Your task to perform on an android device: open sync settings in chrome Image 0: 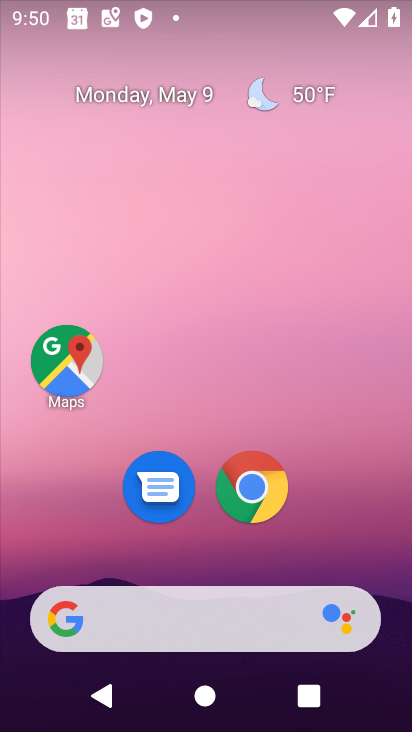
Step 0: click (234, 484)
Your task to perform on an android device: open sync settings in chrome Image 1: 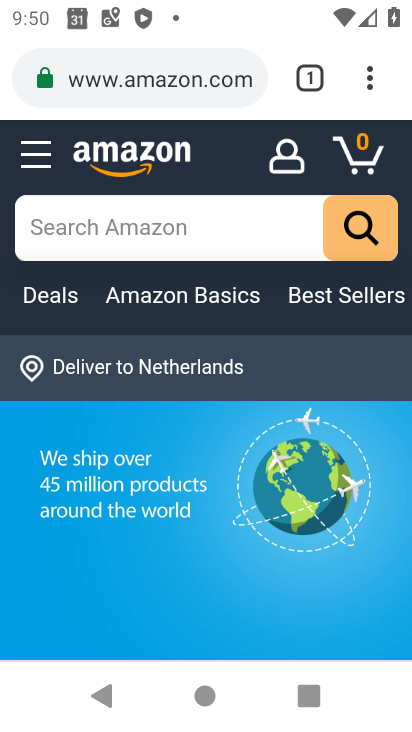
Step 1: click (355, 80)
Your task to perform on an android device: open sync settings in chrome Image 2: 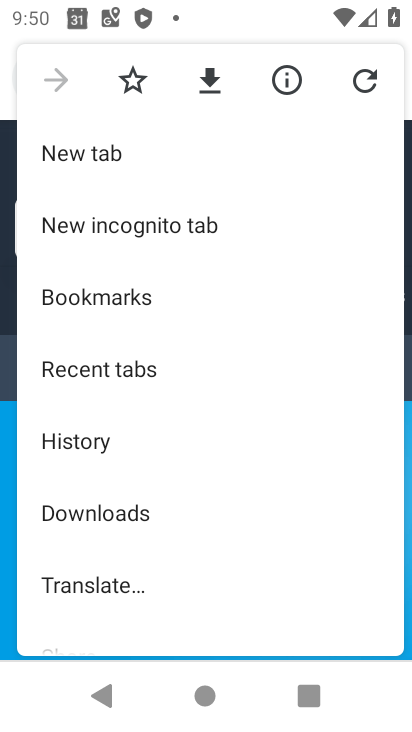
Step 2: drag from (108, 604) to (334, 20)
Your task to perform on an android device: open sync settings in chrome Image 3: 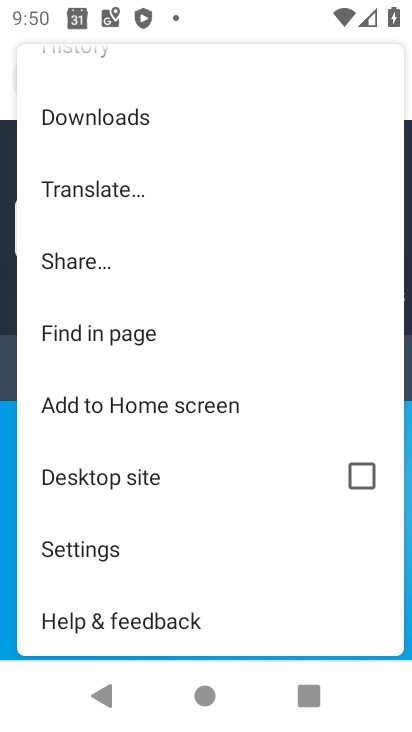
Step 3: click (93, 560)
Your task to perform on an android device: open sync settings in chrome Image 4: 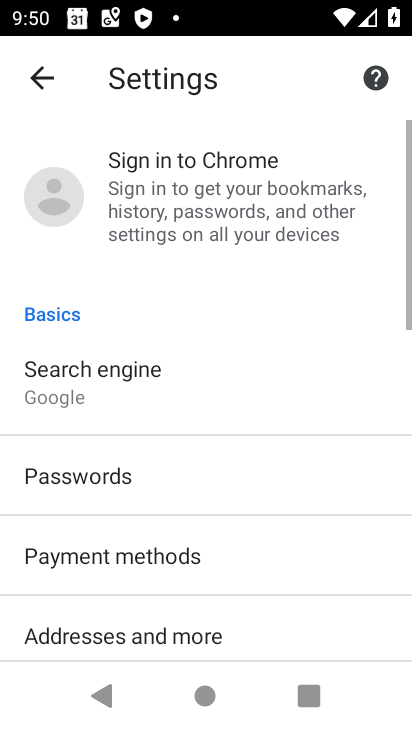
Step 4: drag from (137, 649) to (406, 59)
Your task to perform on an android device: open sync settings in chrome Image 5: 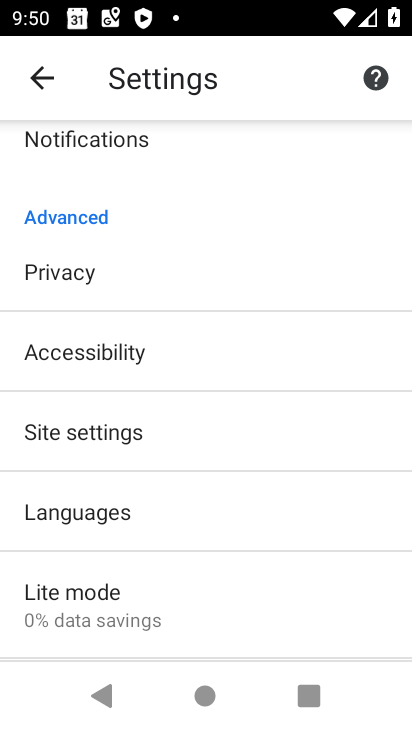
Step 5: click (95, 433)
Your task to perform on an android device: open sync settings in chrome Image 6: 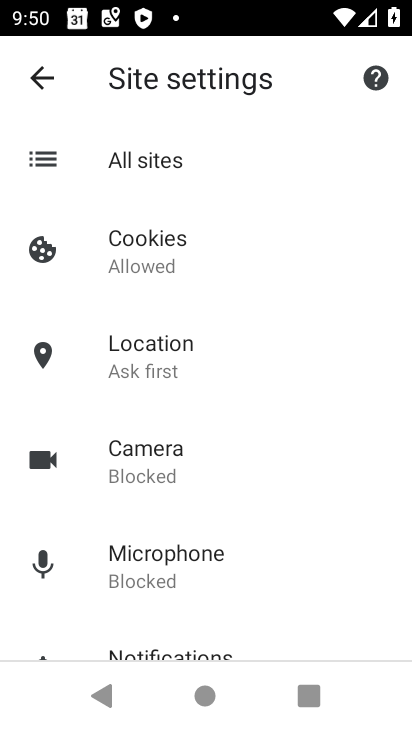
Step 6: drag from (125, 630) to (359, 90)
Your task to perform on an android device: open sync settings in chrome Image 7: 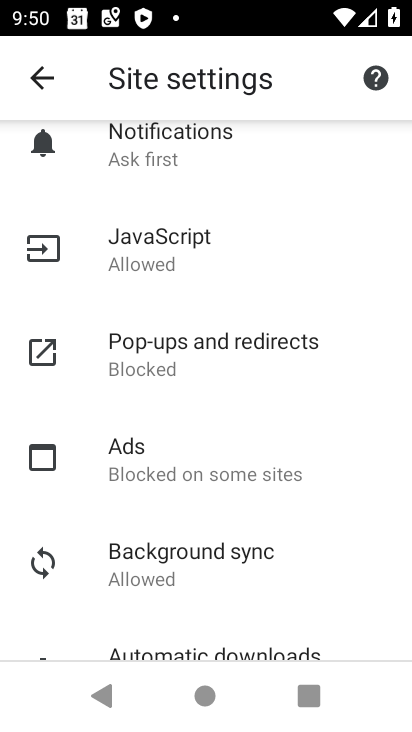
Step 7: click (155, 576)
Your task to perform on an android device: open sync settings in chrome Image 8: 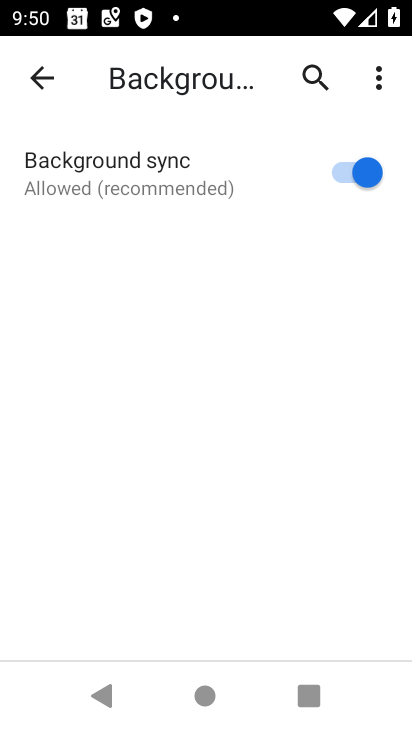
Step 8: click (115, 161)
Your task to perform on an android device: open sync settings in chrome Image 9: 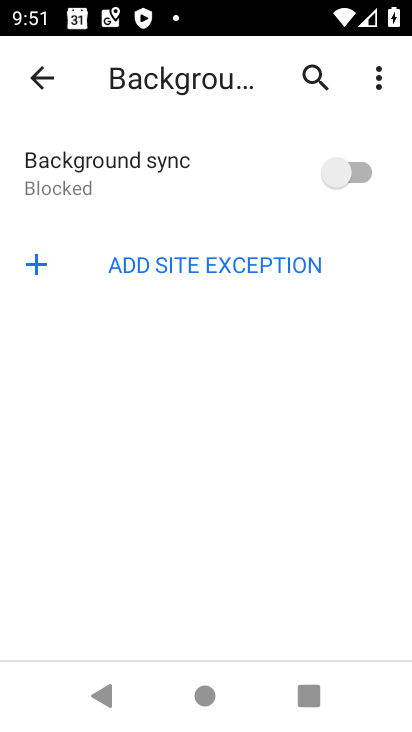
Step 9: click (333, 174)
Your task to perform on an android device: open sync settings in chrome Image 10: 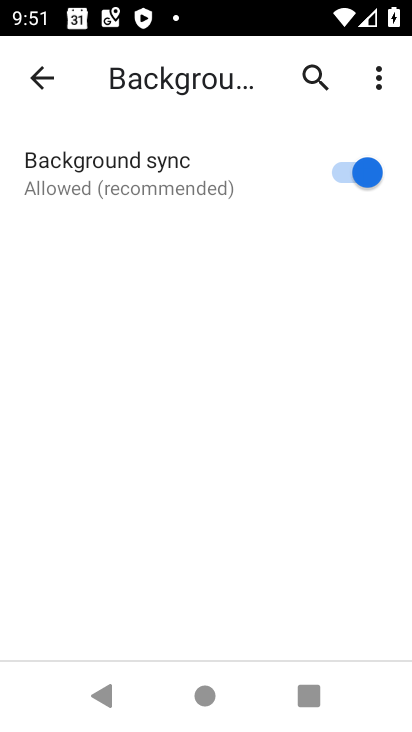
Step 10: task complete